Your task to perform on an android device: Open calendar and show me the first week of next month Image 0: 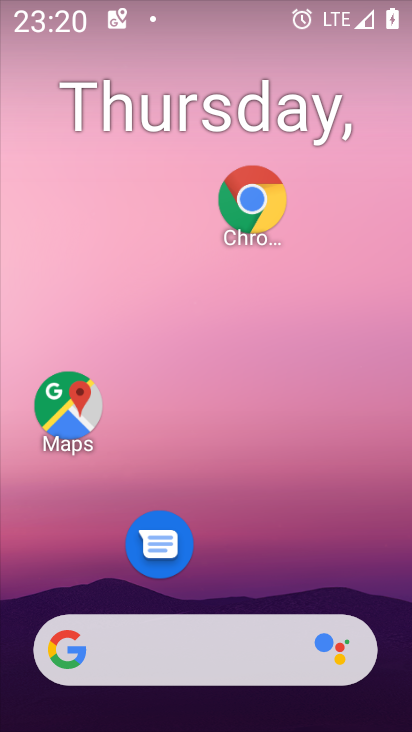
Step 0: click (226, 127)
Your task to perform on an android device: Open calendar and show me the first week of next month Image 1: 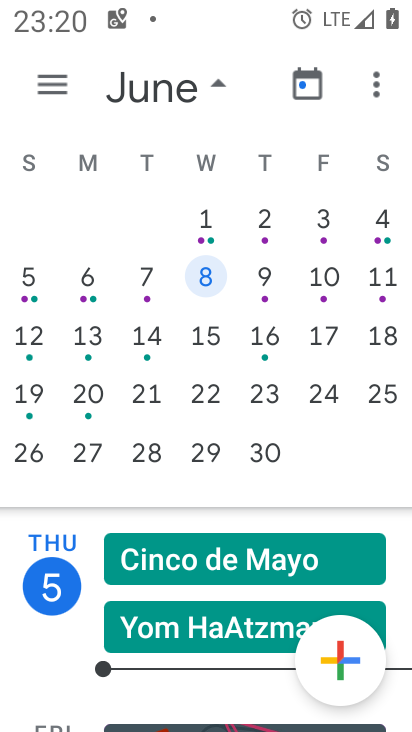
Step 1: click (335, 225)
Your task to perform on an android device: Open calendar and show me the first week of next month Image 2: 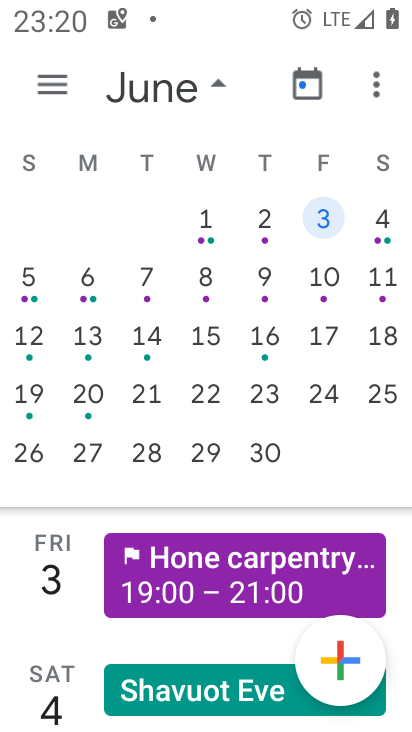
Step 2: task complete